Your task to perform on an android device: Add jbl flip 4 to the cart on costco, then select checkout. Image 0: 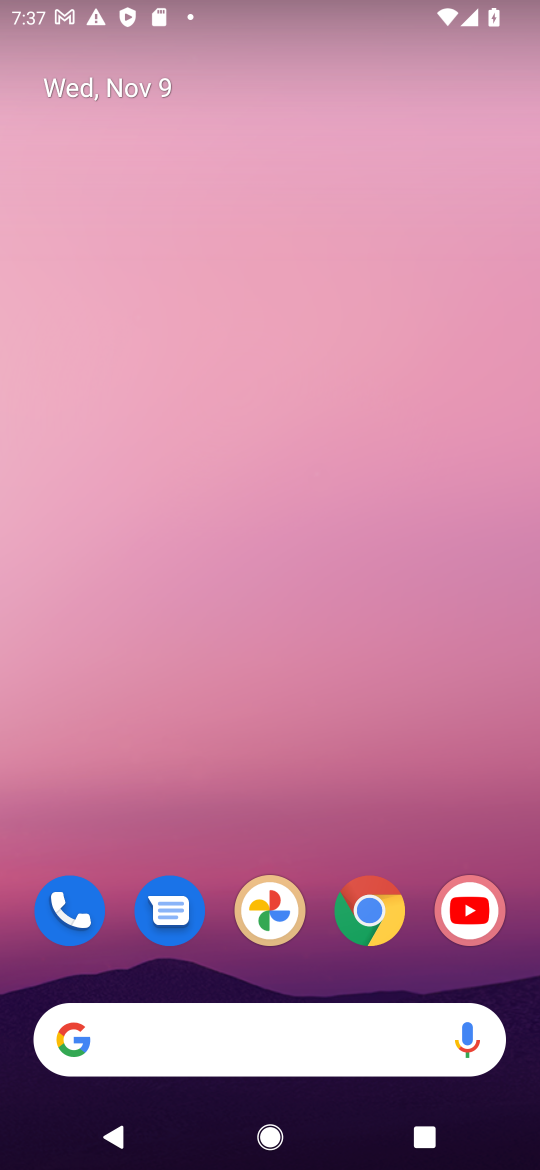
Step 0: click (353, 917)
Your task to perform on an android device: Add jbl flip 4 to the cart on costco, then select checkout. Image 1: 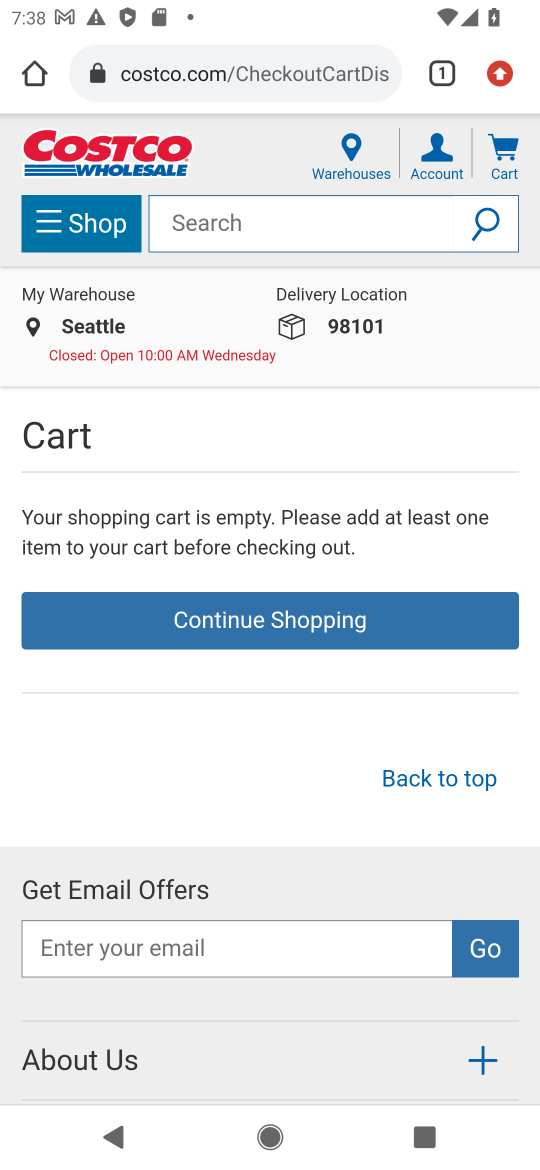
Step 1: click (205, 224)
Your task to perform on an android device: Add jbl flip 4 to the cart on costco, then select checkout. Image 2: 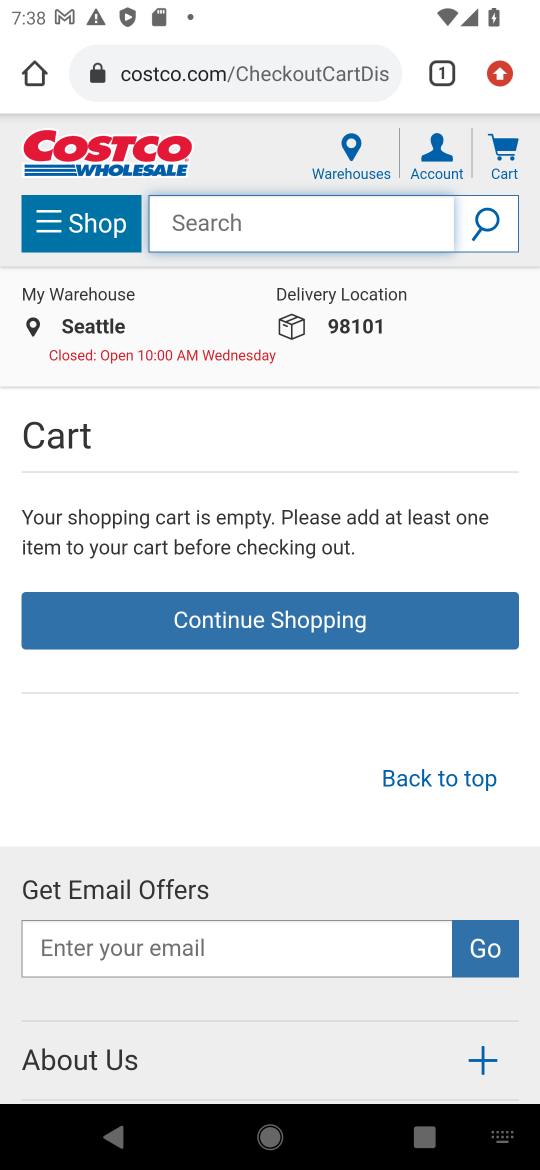
Step 2: type "jbl flip 4"
Your task to perform on an android device: Add jbl flip 4 to the cart on costco, then select checkout. Image 3: 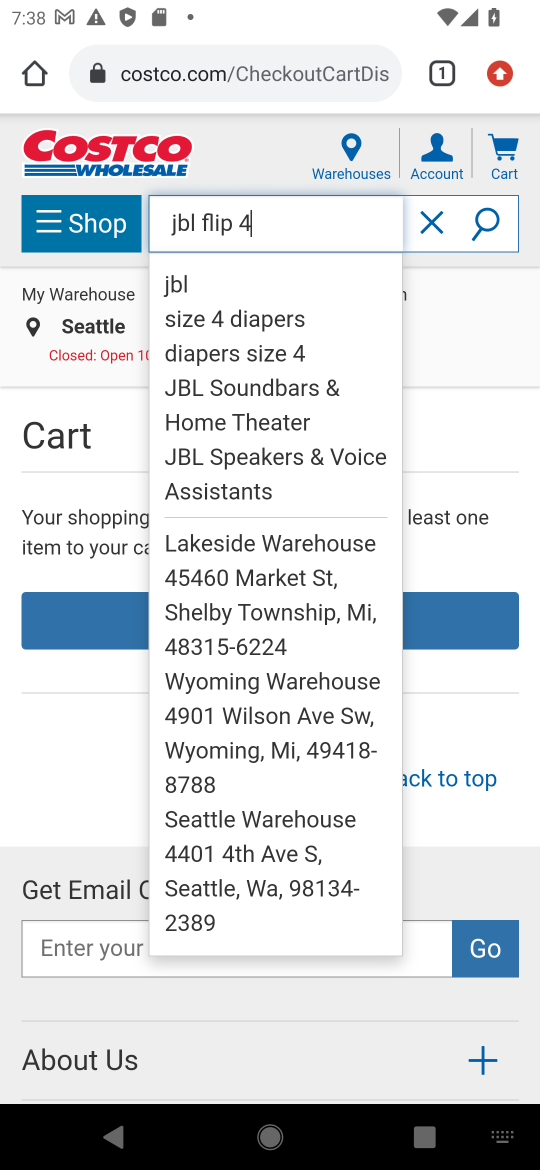
Step 3: click (480, 228)
Your task to perform on an android device: Add jbl flip 4 to the cart on costco, then select checkout. Image 4: 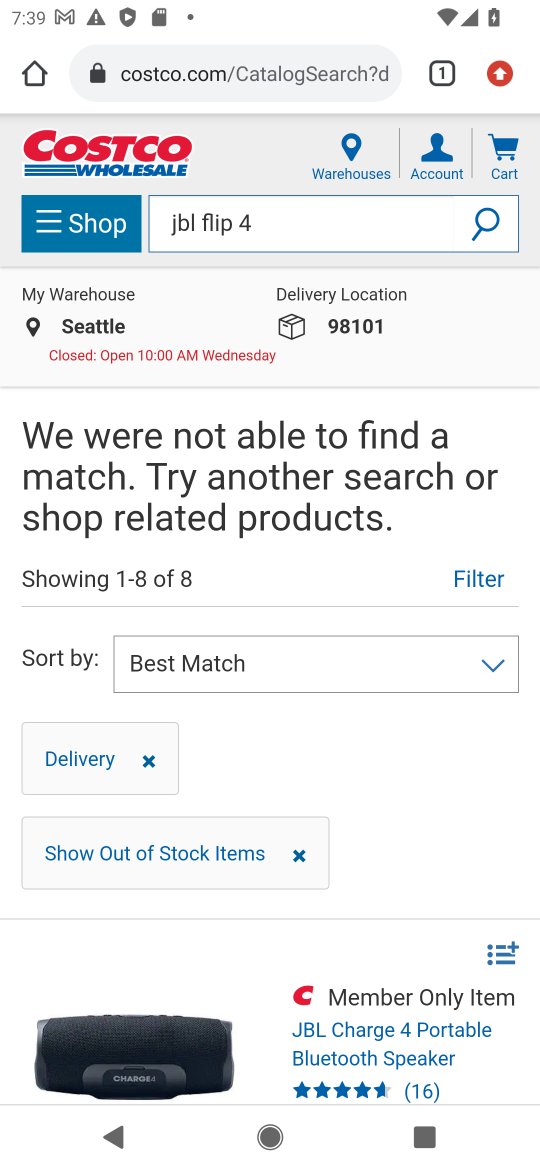
Step 4: task complete